Your task to perform on an android device: Go to internet settings Image 0: 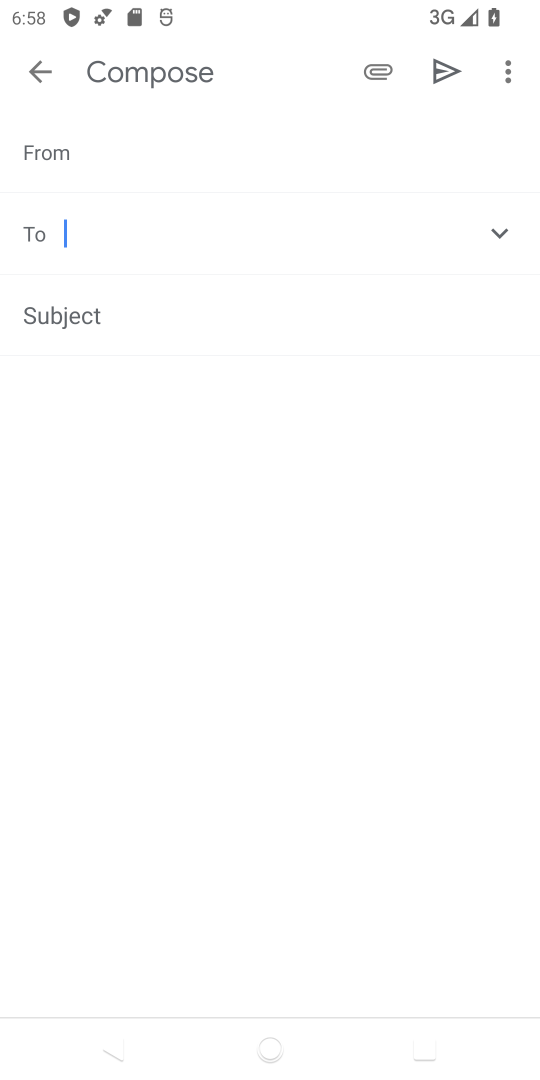
Step 0: press back button
Your task to perform on an android device: Go to internet settings Image 1: 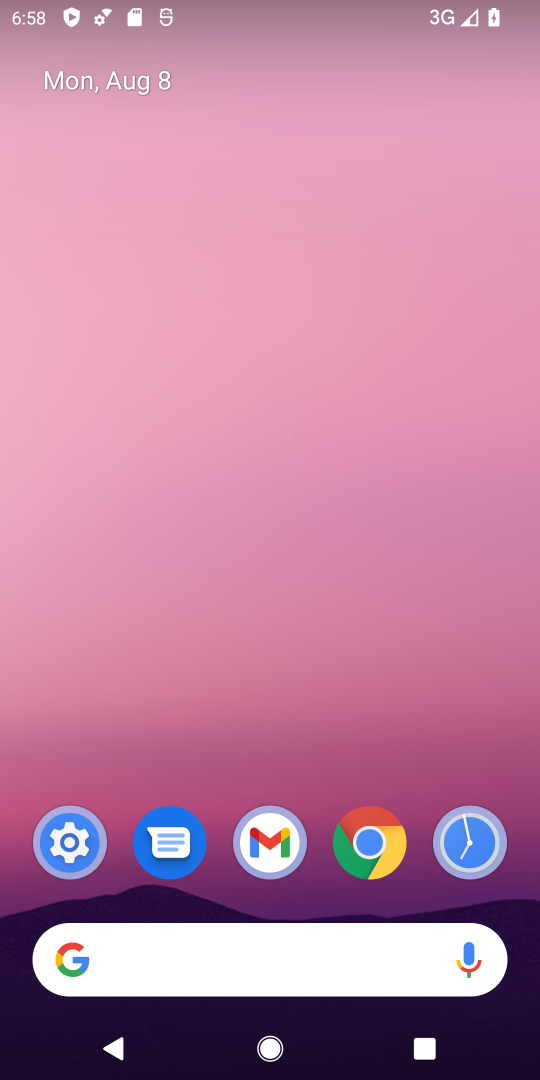
Step 1: drag from (245, 915) to (237, 166)
Your task to perform on an android device: Go to internet settings Image 2: 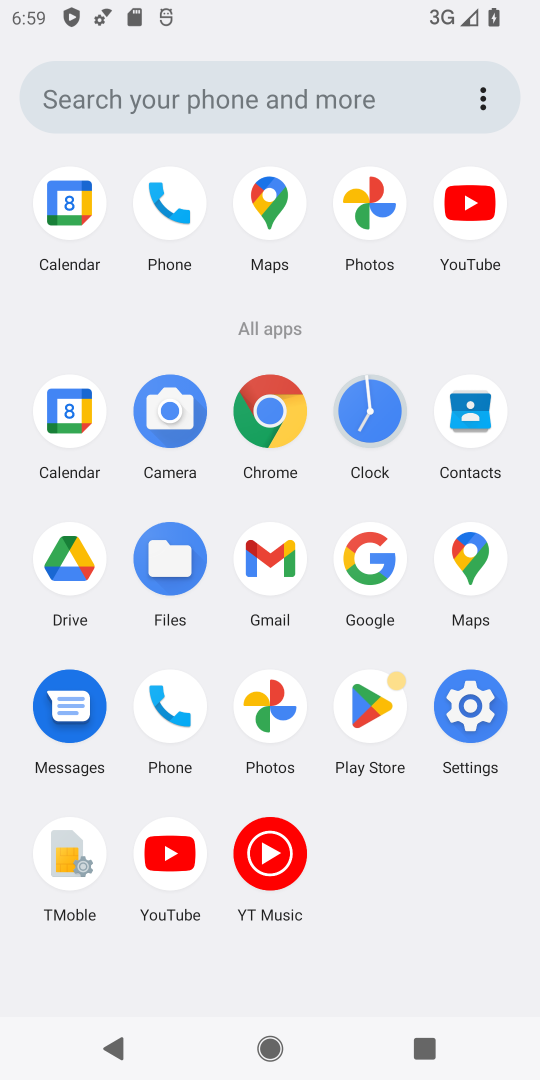
Step 2: click (457, 728)
Your task to perform on an android device: Go to internet settings Image 3: 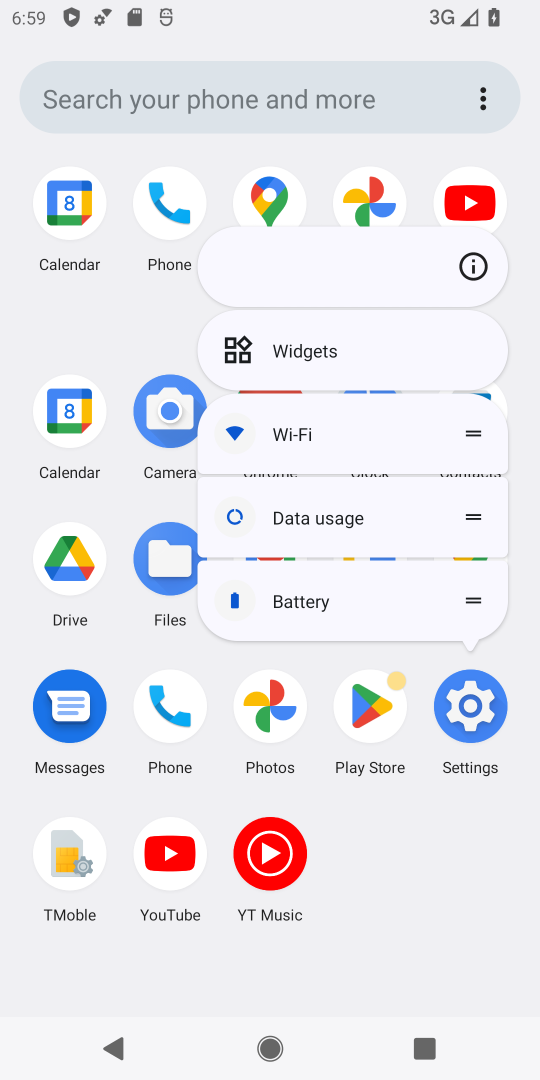
Step 3: click (457, 728)
Your task to perform on an android device: Go to internet settings Image 4: 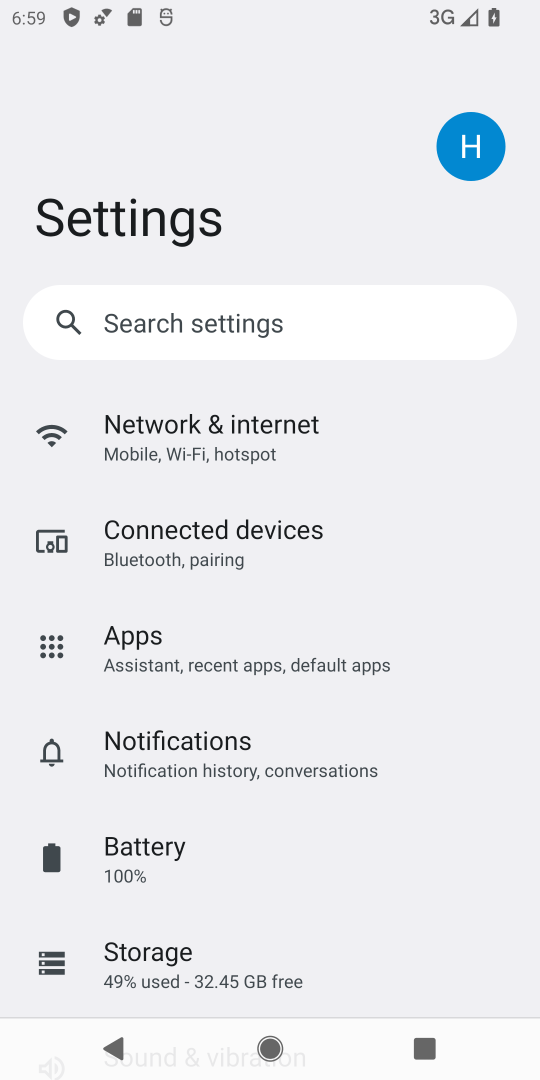
Step 4: drag from (288, 431) to (340, 431)
Your task to perform on an android device: Go to internet settings Image 5: 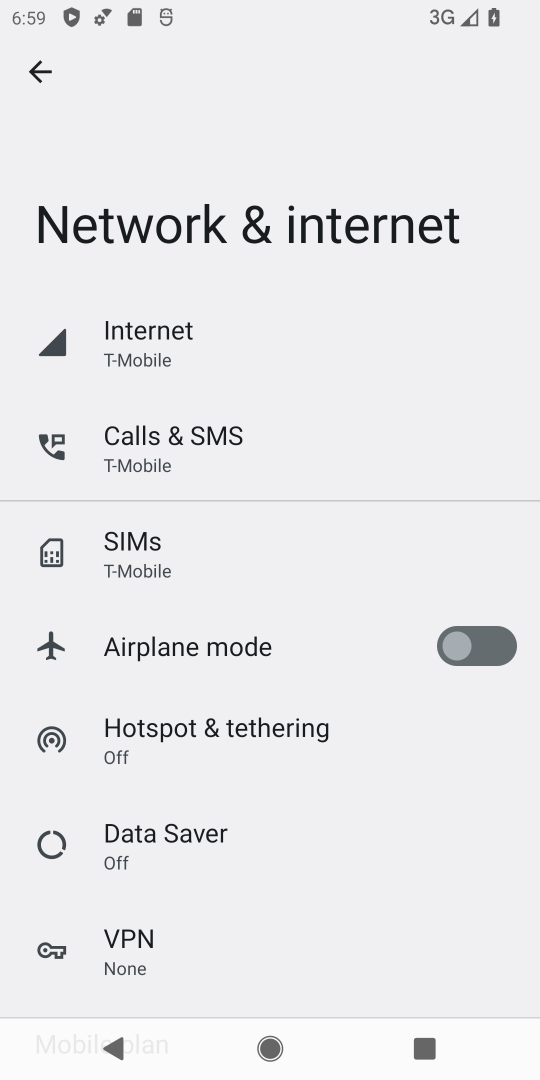
Step 5: click (190, 338)
Your task to perform on an android device: Go to internet settings Image 6: 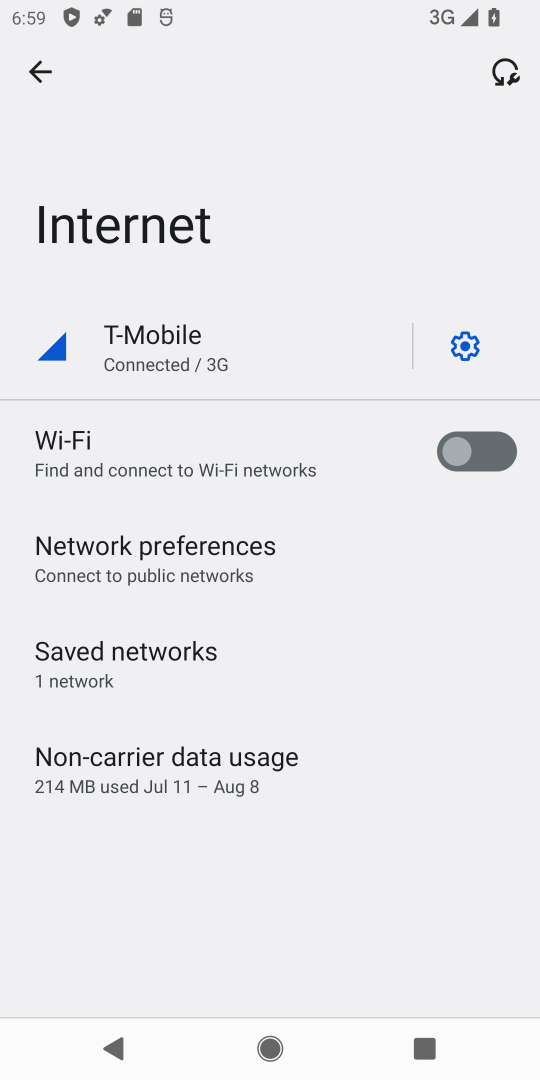
Step 6: task complete